Your task to perform on an android device: turn on the 12-hour format for clock Image 0: 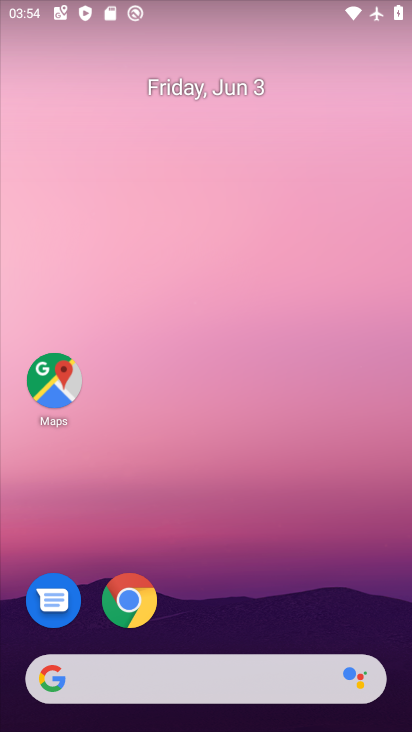
Step 0: drag from (232, 621) to (278, 79)
Your task to perform on an android device: turn on the 12-hour format for clock Image 1: 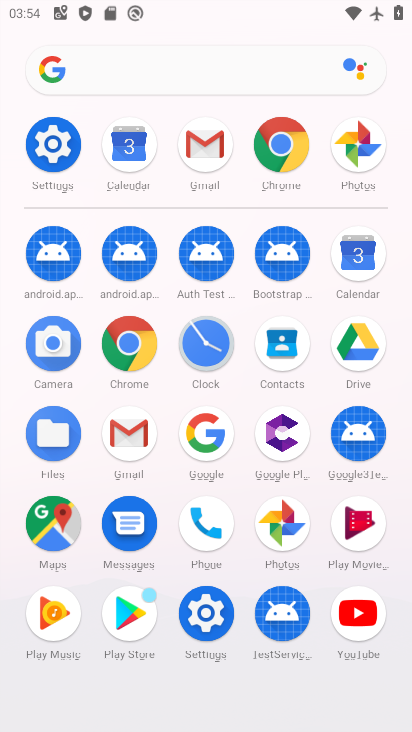
Step 1: click (211, 625)
Your task to perform on an android device: turn on the 12-hour format for clock Image 2: 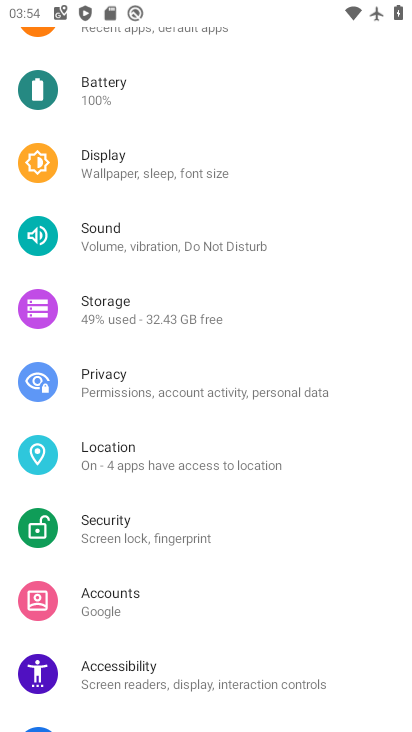
Step 2: drag from (188, 582) to (221, 381)
Your task to perform on an android device: turn on the 12-hour format for clock Image 3: 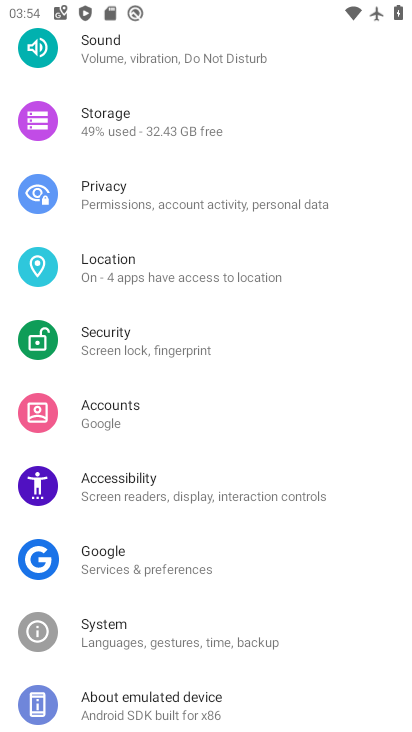
Step 3: click (136, 637)
Your task to perform on an android device: turn on the 12-hour format for clock Image 4: 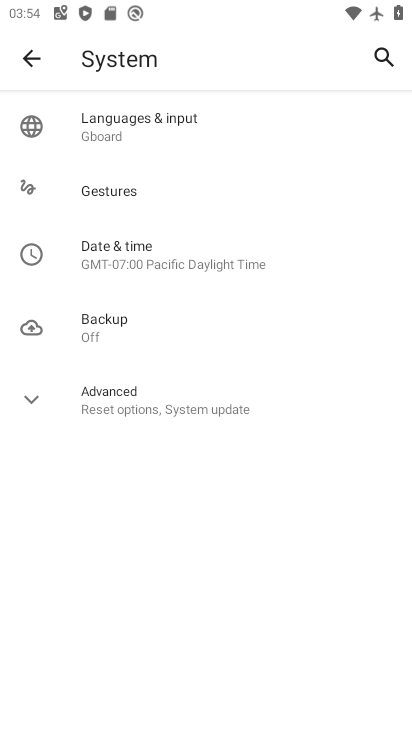
Step 4: click (127, 261)
Your task to perform on an android device: turn on the 12-hour format for clock Image 5: 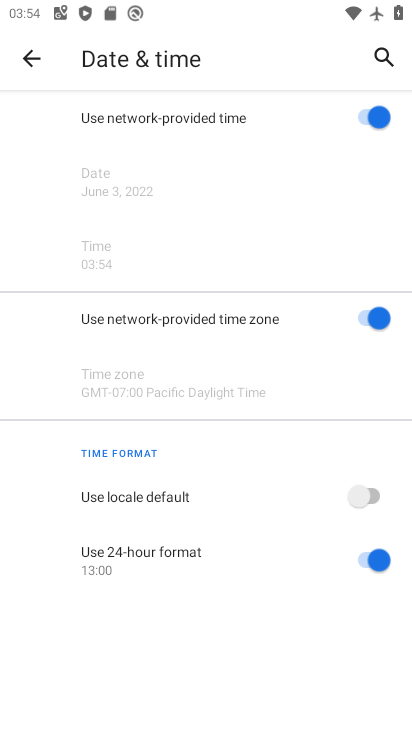
Step 5: click (379, 493)
Your task to perform on an android device: turn on the 12-hour format for clock Image 6: 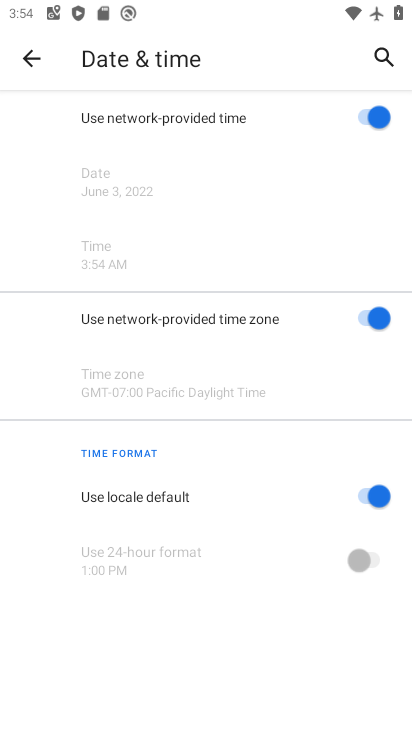
Step 6: task complete